Your task to perform on an android device: Go to ESPN.com Image 0: 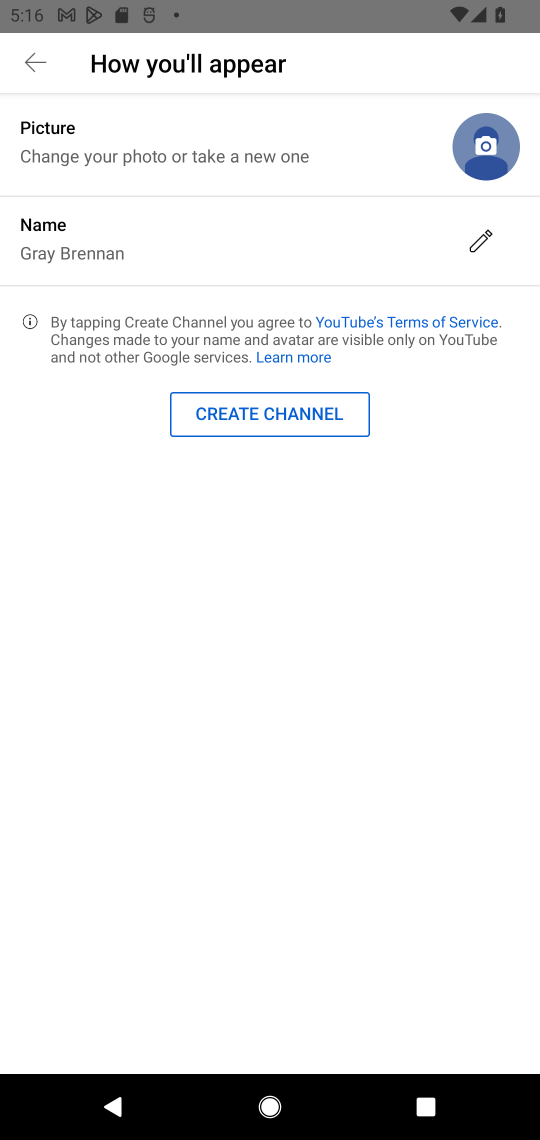
Step 0: press home button
Your task to perform on an android device: Go to ESPN.com Image 1: 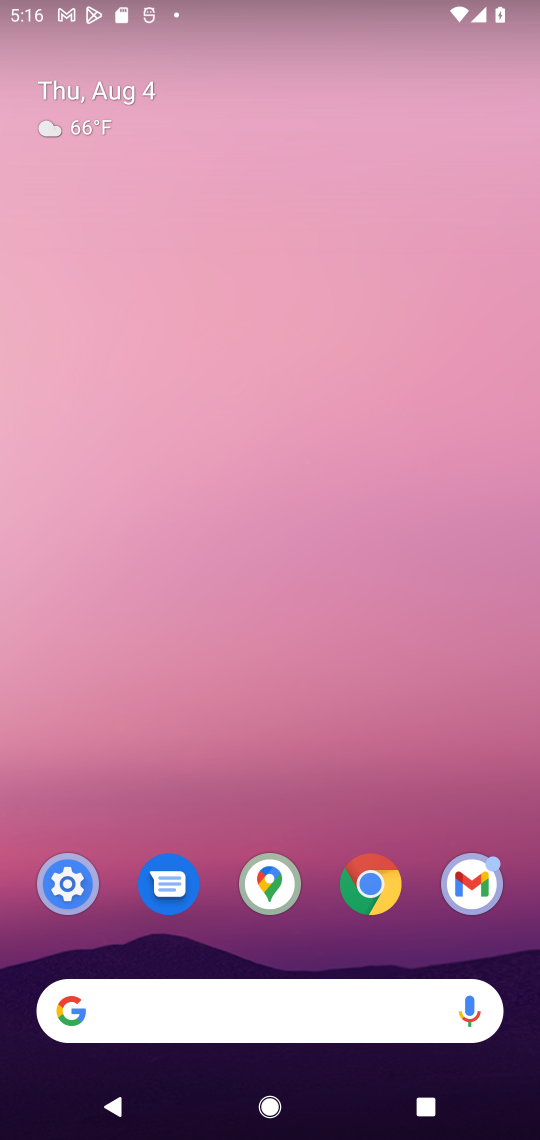
Step 1: click (365, 891)
Your task to perform on an android device: Go to ESPN.com Image 2: 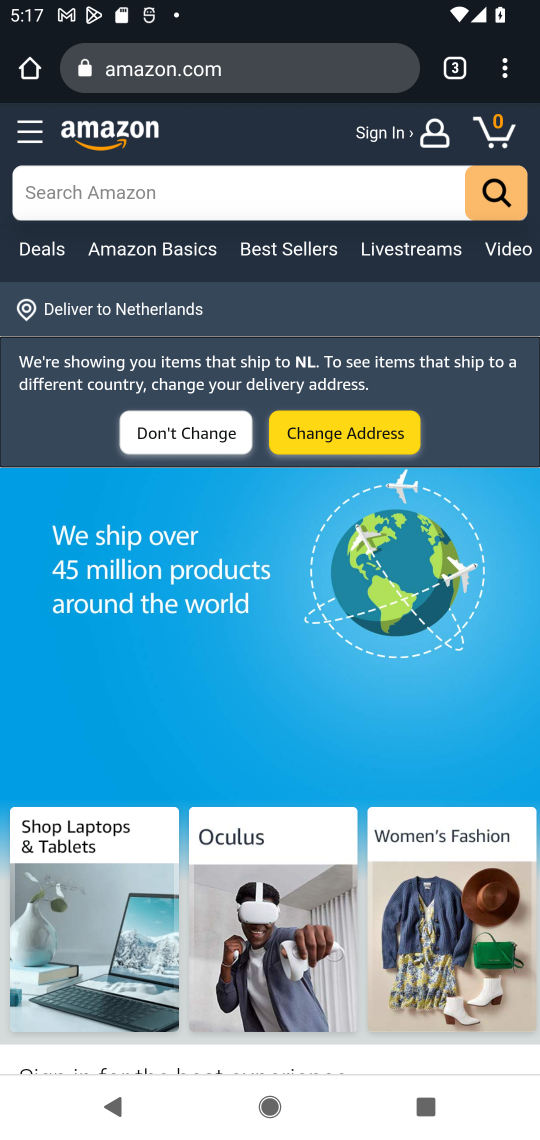
Step 2: click (243, 80)
Your task to perform on an android device: Go to ESPN.com Image 3: 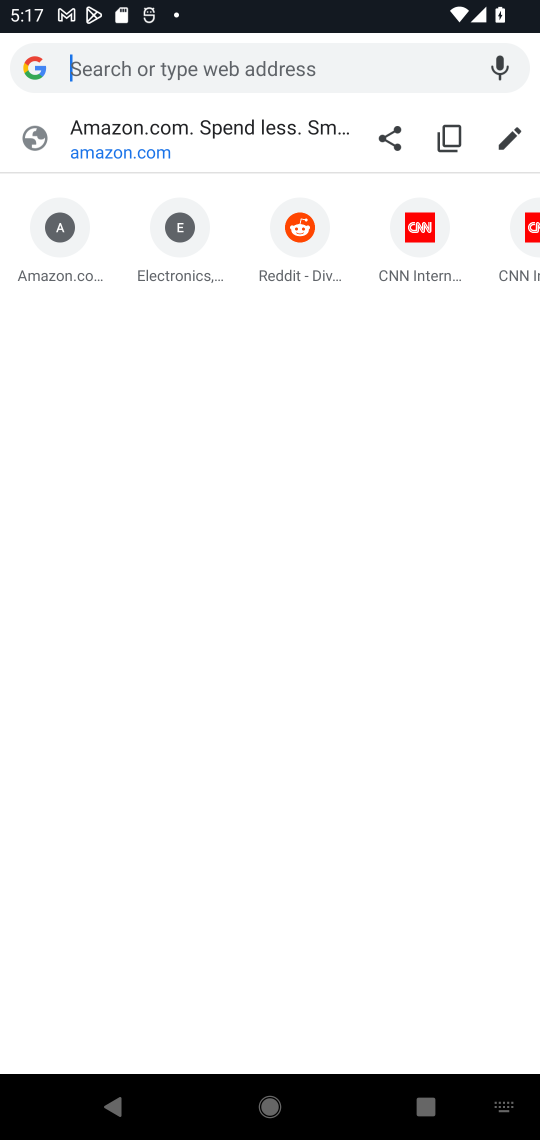
Step 3: type "espn"
Your task to perform on an android device: Go to ESPN.com Image 4: 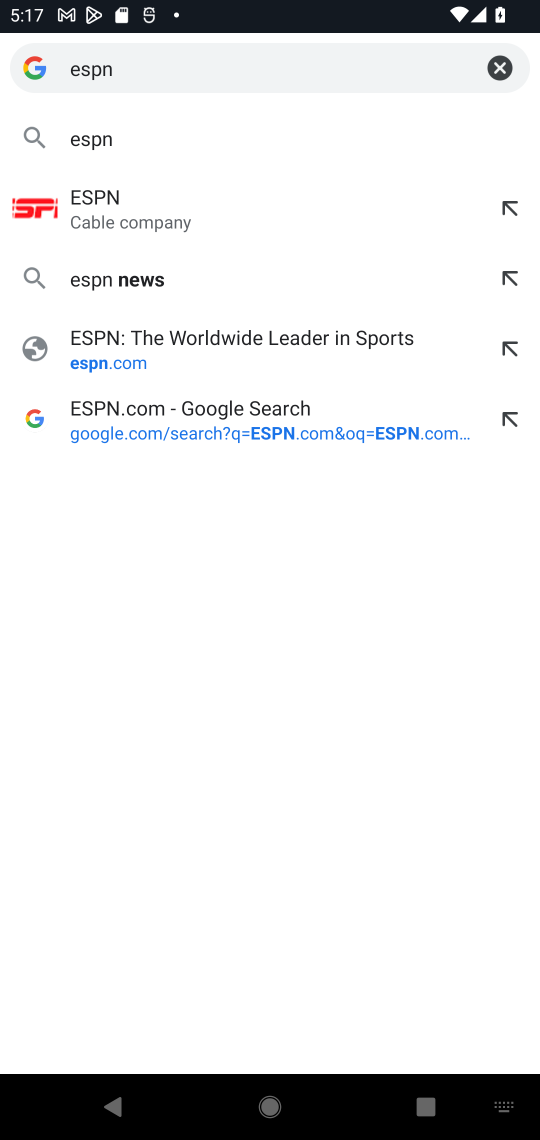
Step 4: click (163, 230)
Your task to perform on an android device: Go to ESPN.com Image 5: 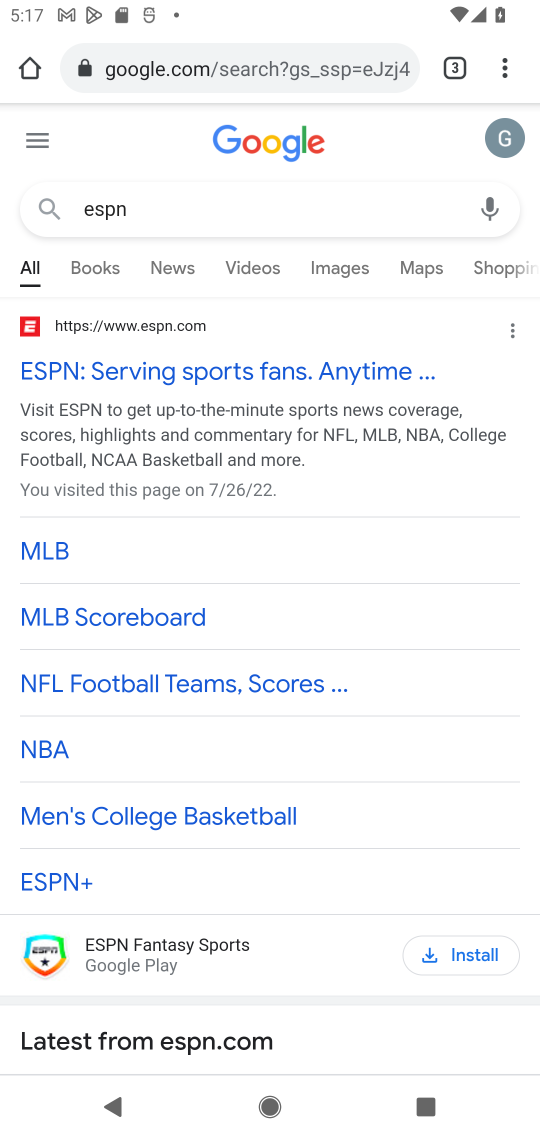
Step 5: click (339, 368)
Your task to perform on an android device: Go to ESPN.com Image 6: 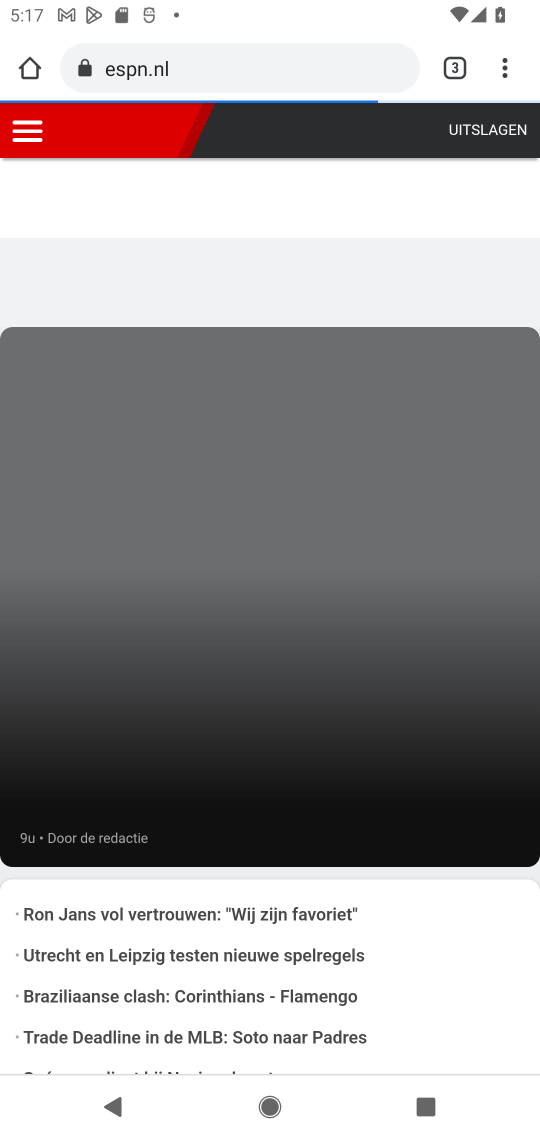
Step 6: task complete